Your task to perform on an android device: toggle improve location accuracy Image 0: 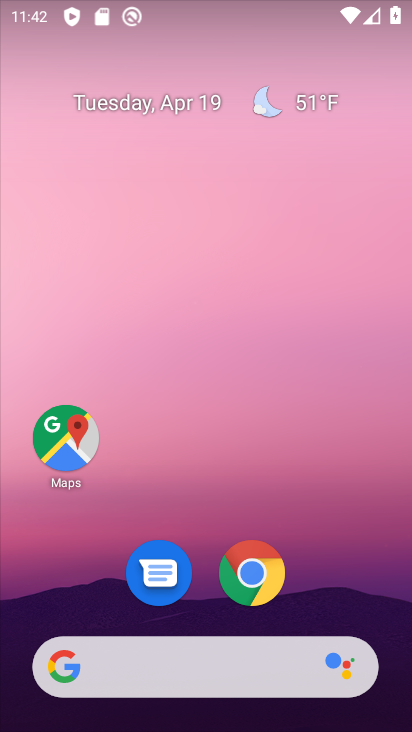
Step 0: drag from (331, 592) to (299, 164)
Your task to perform on an android device: toggle improve location accuracy Image 1: 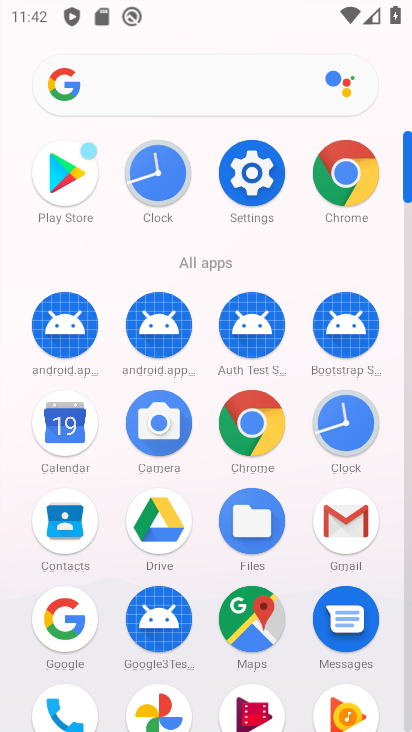
Step 1: click (247, 184)
Your task to perform on an android device: toggle improve location accuracy Image 2: 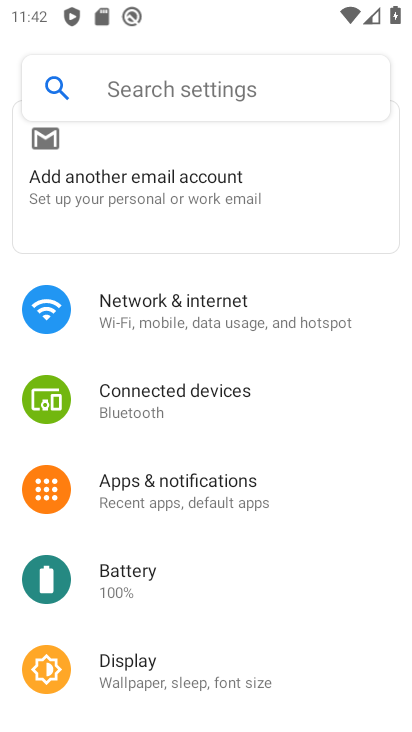
Step 2: drag from (194, 639) to (244, 291)
Your task to perform on an android device: toggle improve location accuracy Image 3: 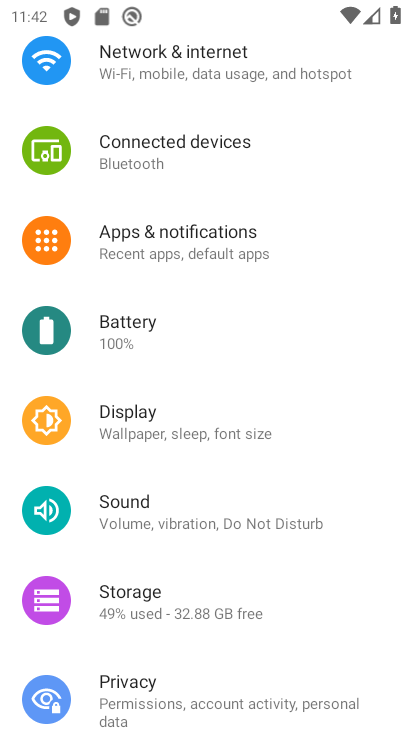
Step 3: drag from (217, 672) to (228, 530)
Your task to perform on an android device: toggle improve location accuracy Image 4: 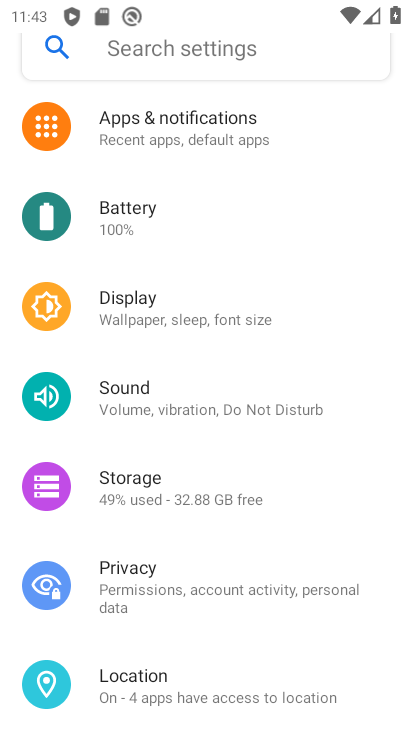
Step 4: click (196, 705)
Your task to perform on an android device: toggle improve location accuracy Image 5: 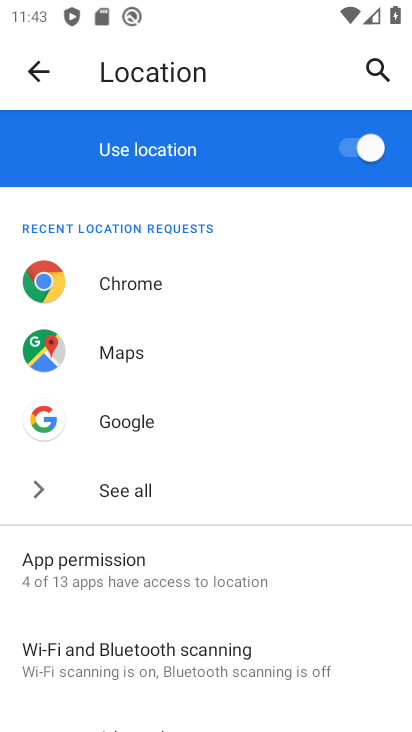
Step 5: drag from (225, 652) to (257, 292)
Your task to perform on an android device: toggle improve location accuracy Image 6: 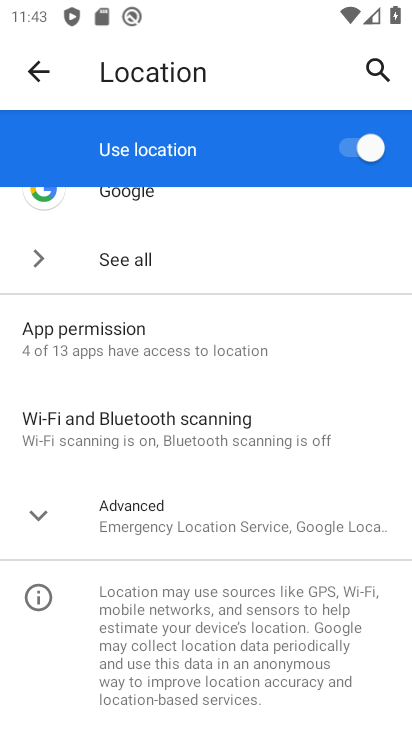
Step 6: click (36, 519)
Your task to perform on an android device: toggle improve location accuracy Image 7: 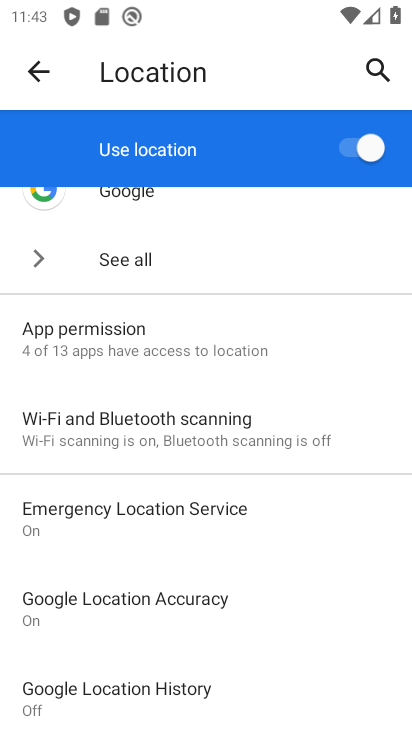
Step 7: click (183, 598)
Your task to perform on an android device: toggle improve location accuracy Image 8: 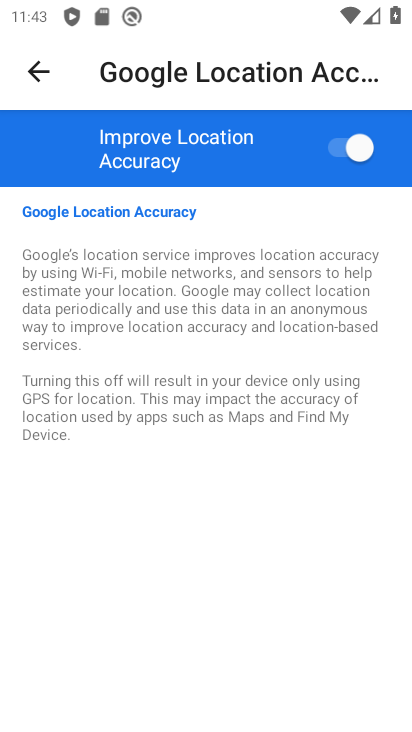
Step 8: click (343, 143)
Your task to perform on an android device: toggle improve location accuracy Image 9: 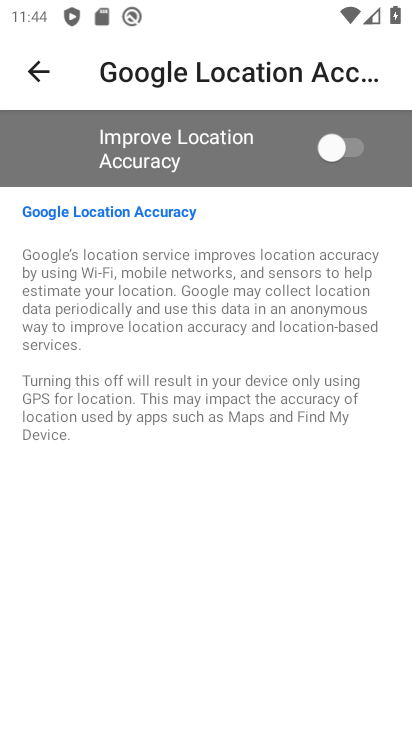
Step 9: task complete